Your task to perform on an android device: Is it going to rain today? Image 0: 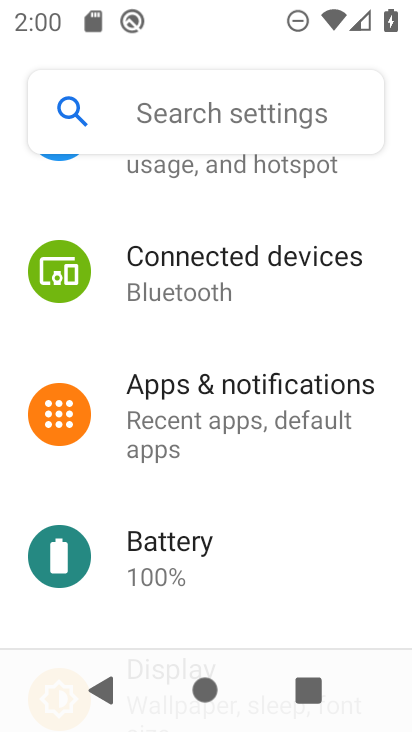
Step 0: press home button
Your task to perform on an android device: Is it going to rain today? Image 1: 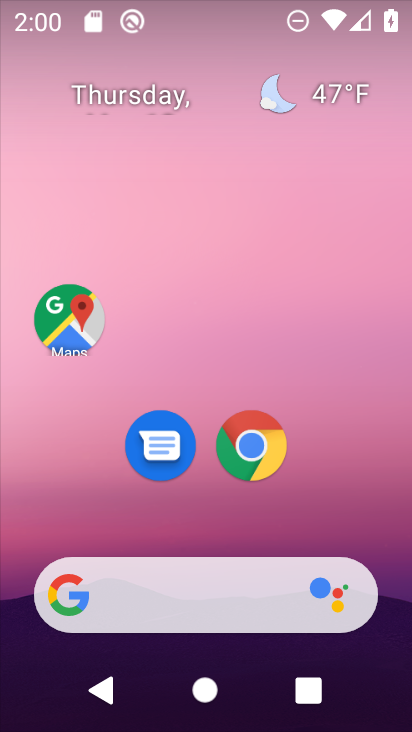
Step 1: drag from (220, 528) to (208, 190)
Your task to perform on an android device: Is it going to rain today? Image 2: 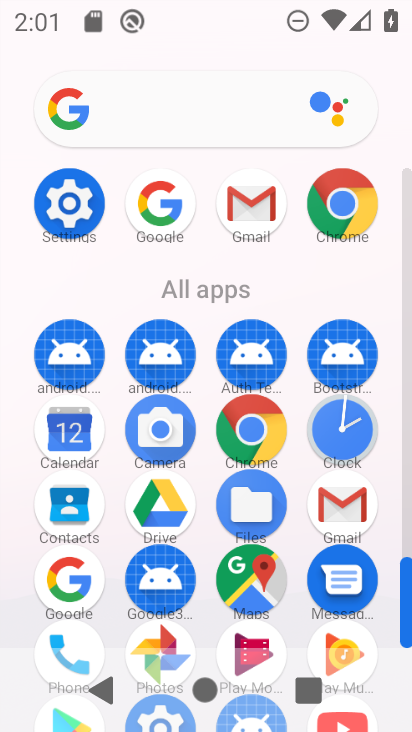
Step 2: click (166, 226)
Your task to perform on an android device: Is it going to rain today? Image 3: 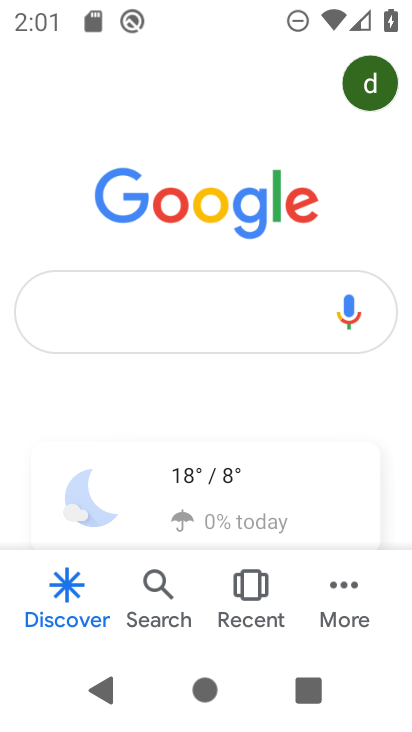
Step 3: click (137, 311)
Your task to perform on an android device: Is it going to rain today? Image 4: 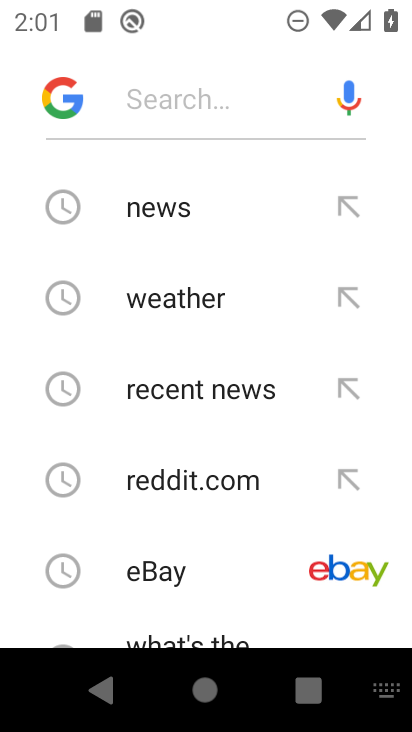
Step 4: click (168, 306)
Your task to perform on an android device: Is it going to rain today? Image 5: 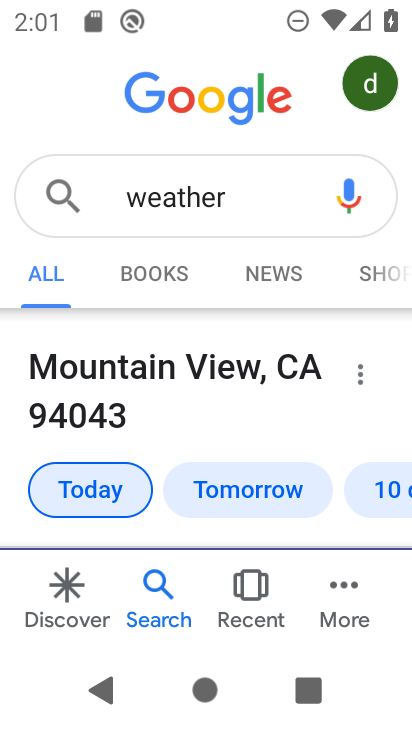
Step 5: task complete